Your task to perform on an android device: Go to Amazon Image 0: 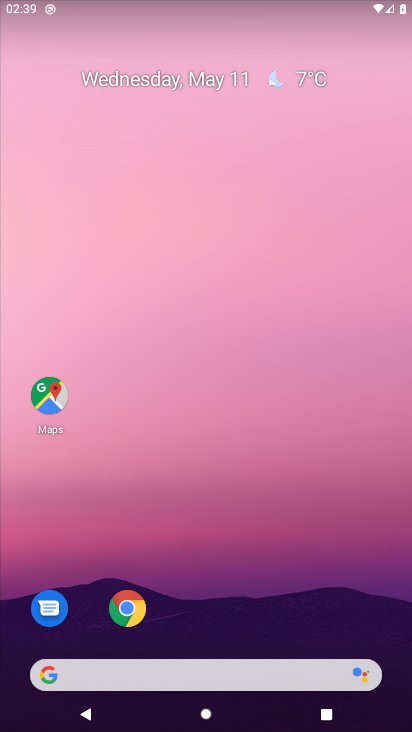
Step 0: click (134, 606)
Your task to perform on an android device: Go to Amazon Image 1: 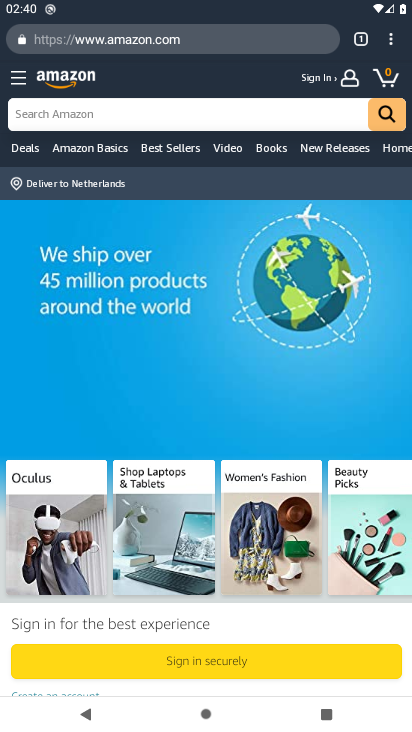
Step 1: task complete